Your task to perform on an android device: turn off picture-in-picture Image 0: 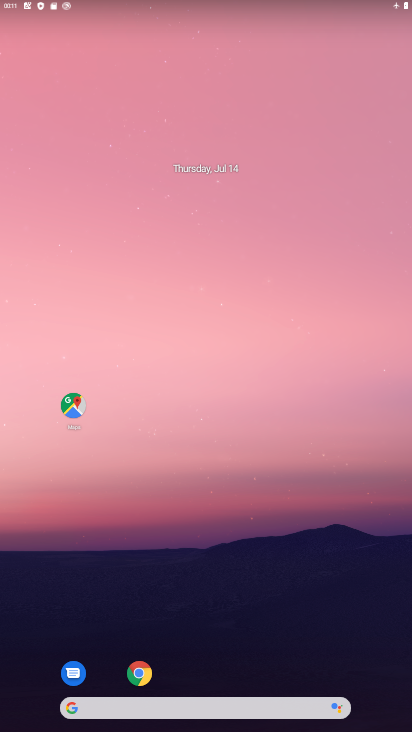
Step 0: click (140, 660)
Your task to perform on an android device: turn off picture-in-picture Image 1: 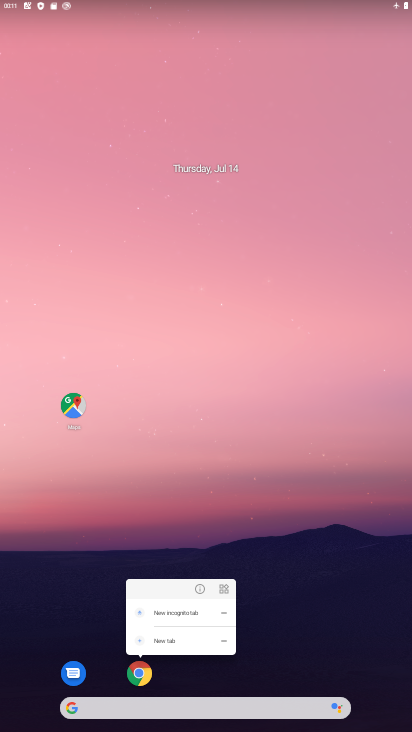
Step 1: click (197, 593)
Your task to perform on an android device: turn off picture-in-picture Image 2: 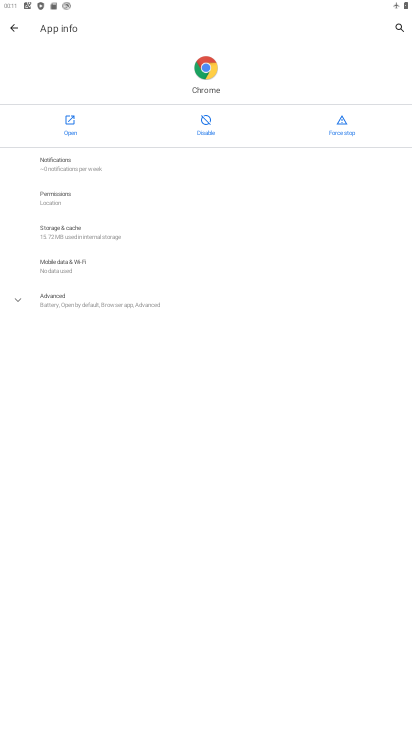
Step 2: click (96, 297)
Your task to perform on an android device: turn off picture-in-picture Image 3: 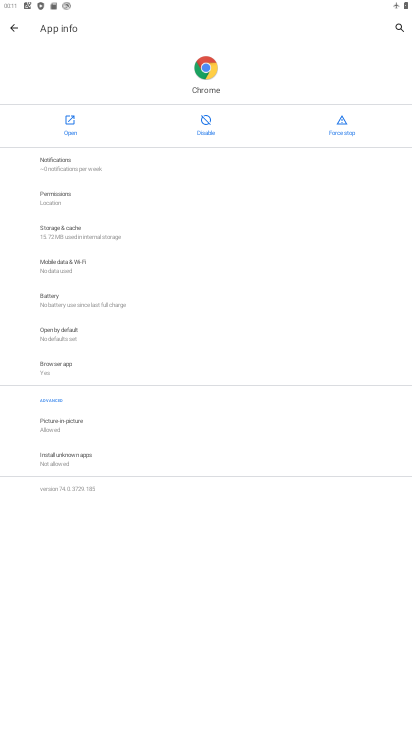
Step 3: click (72, 422)
Your task to perform on an android device: turn off picture-in-picture Image 4: 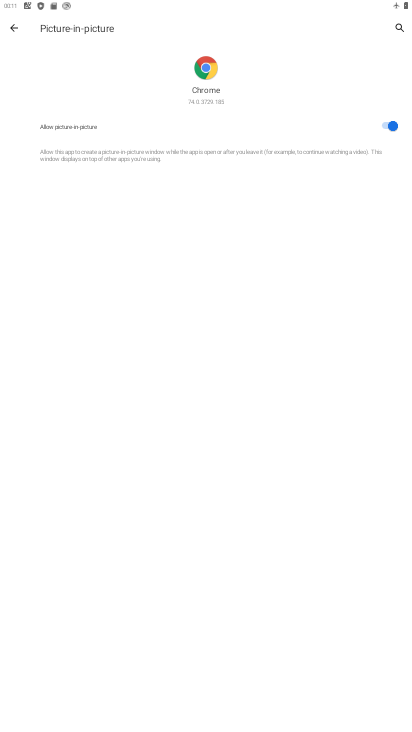
Step 4: click (385, 123)
Your task to perform on an android device: turn off picture-in-picture Image 5: 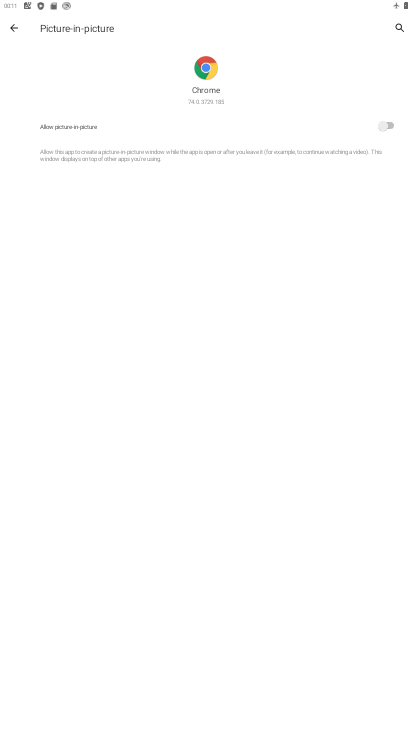
Step 5: task complete